Your task to perform on an android device: Go to ESPN.com Image 0: 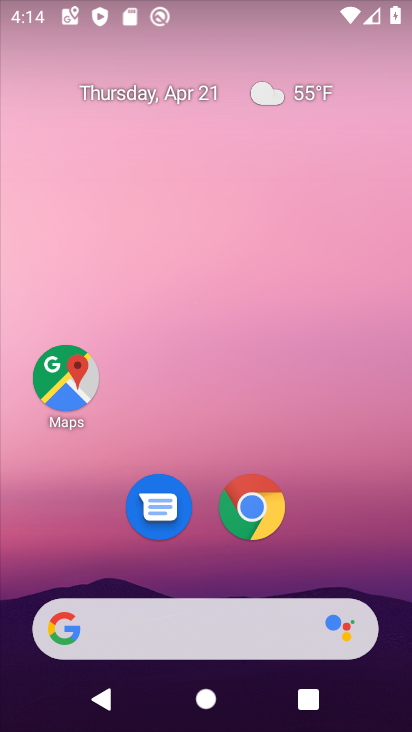
Step 0: click (268, 509)
Your task to perform on an android device: Go to ESPN.com Image 1: 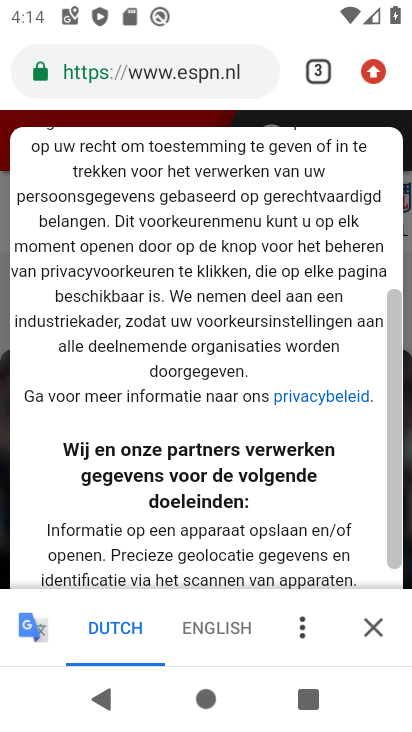
Step 1: task complete